Your task to perform on an android device: toggle sleep mode Image 0: 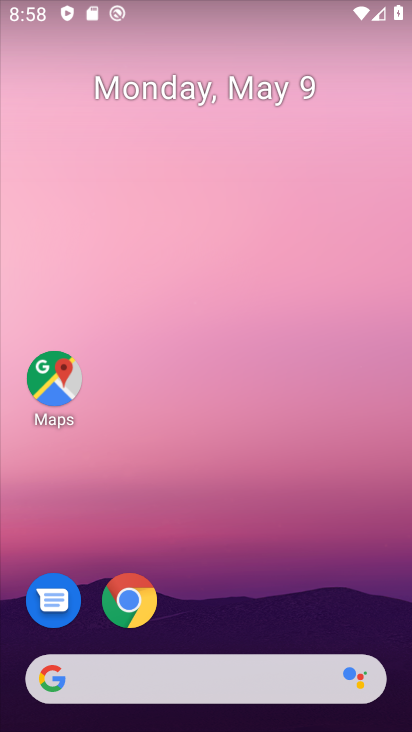
Step 0: click (141, 57)
Your task to perform on an android device: toggle sleep mode Image 1: 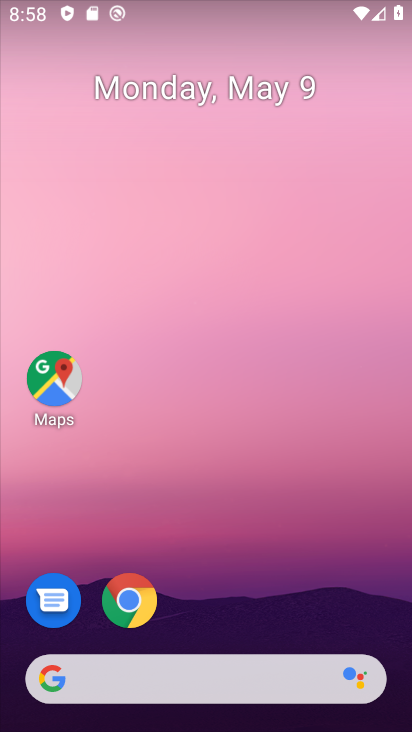
Step 1: drag from (195, 279) to (127, 14)
Your task to perform on an android device: toggle sleep mode Image 2: 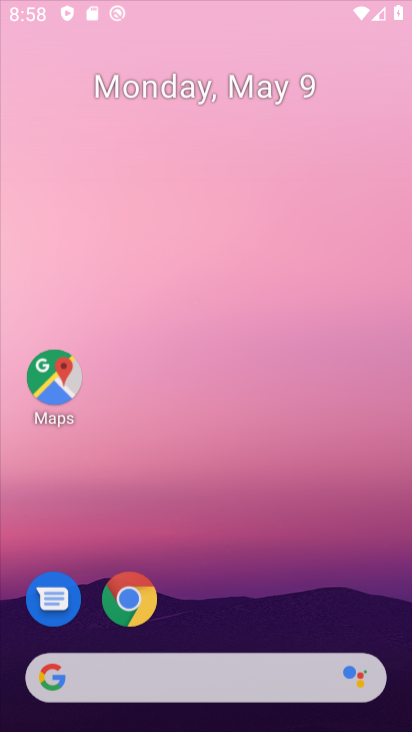
Step 2: drag from (154, 277) to (139, 8)
Your task to perform on an android device: toggle sleep mode Image 3: 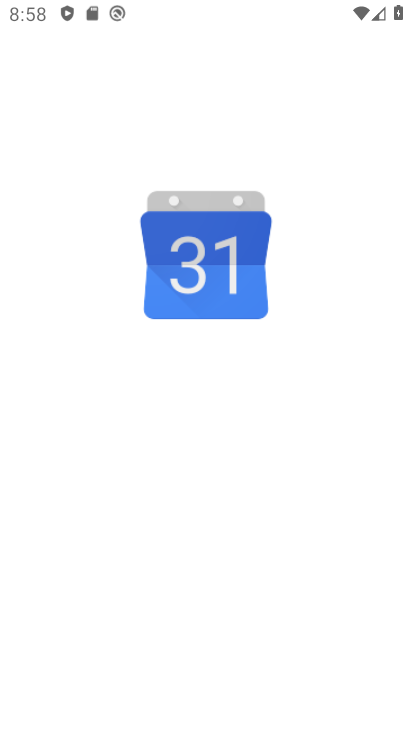
Step 3: drag from (225, 339) to (260, 56)
Your task to perform on an android device: toggle sleep mode Image 4: 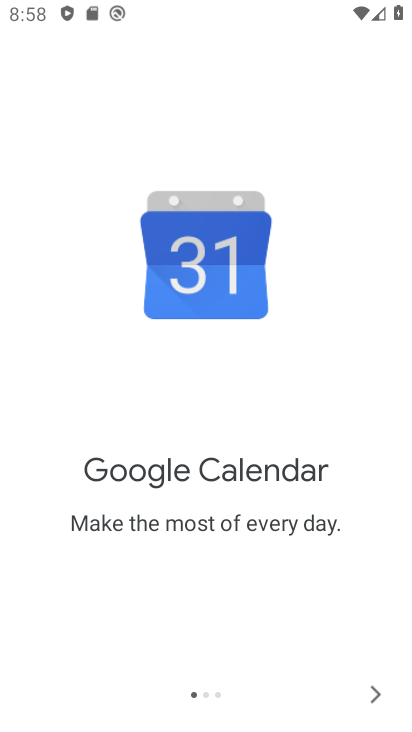
Step 4: click (385, 697)
Your task to perform on an android device: toggle sleep mode Image 5: 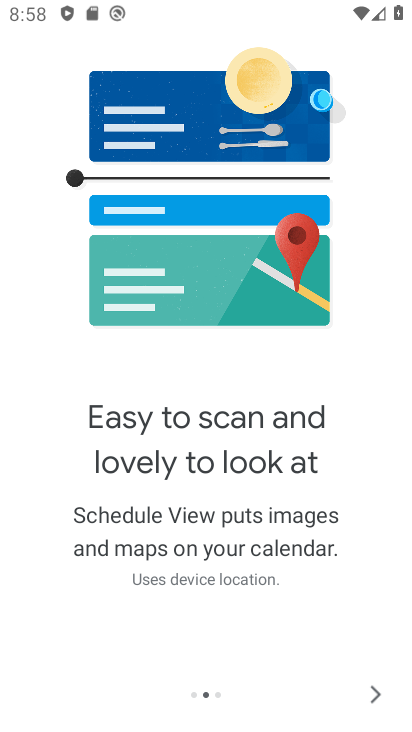
Step 5: click (375, 699)
Your task to perform on an android device: toggle sleep mode Image 6: 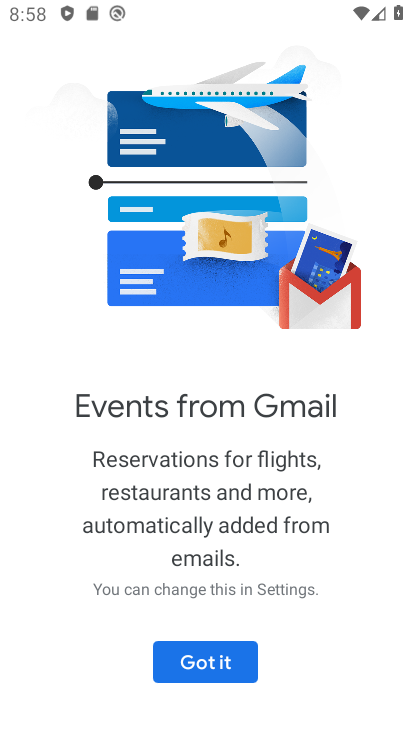
Step 6: click (212, 638)
Your task to perform on an android device: toggle sleep mode Image 7: 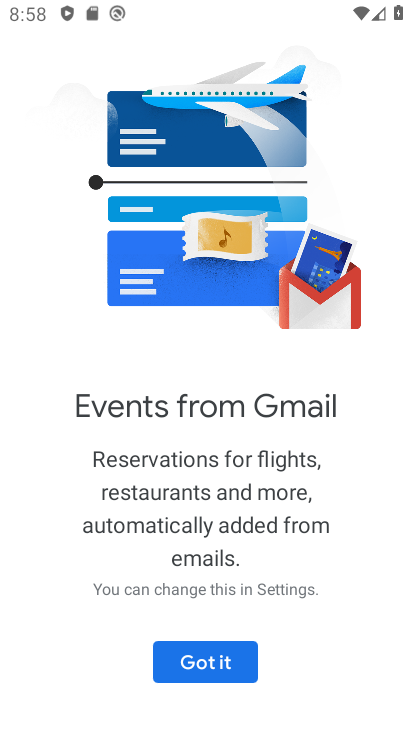
Step 7: click (212, 646)
Your task to perform on an android device: toggle sleep mode Image 8: 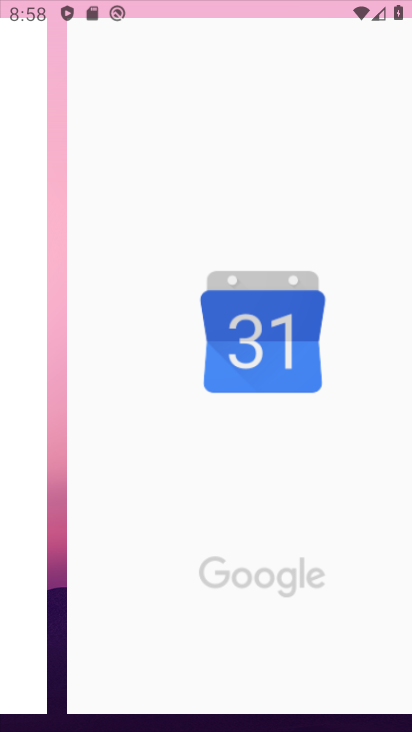
Step 8: click (220, 667)
Your task to perform on an android device: toggle sleep mode Image 9: 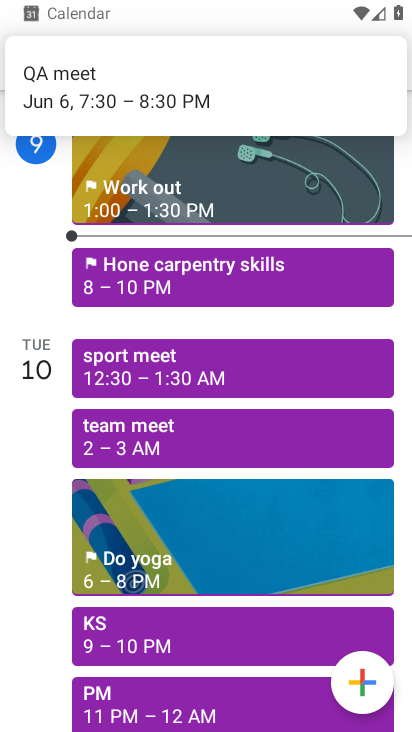
Step 9: press back button
Your task to perform on an android device: toggle sleep mode Image 10: 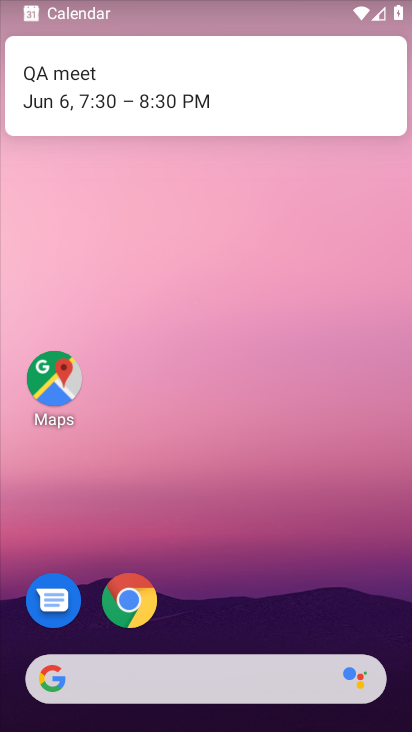
Step 10: drag from (247, 528) to (50, 54)
Your task to perform on an android device: toggle sleep mode Image 11: 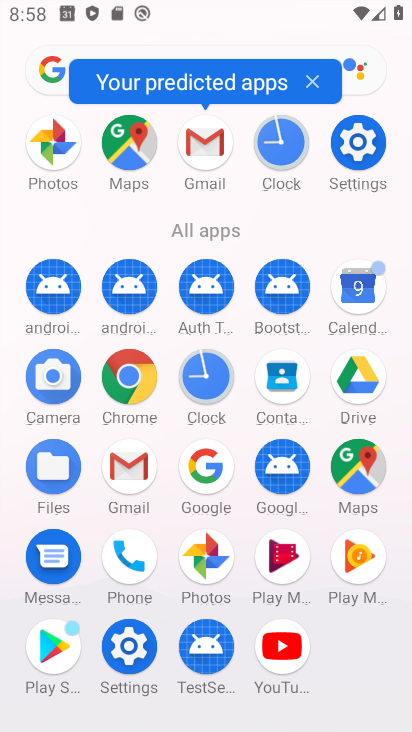
Step 11: click (371, 153)
Your task to perform on an android device: toggle sleep mode Image 12: 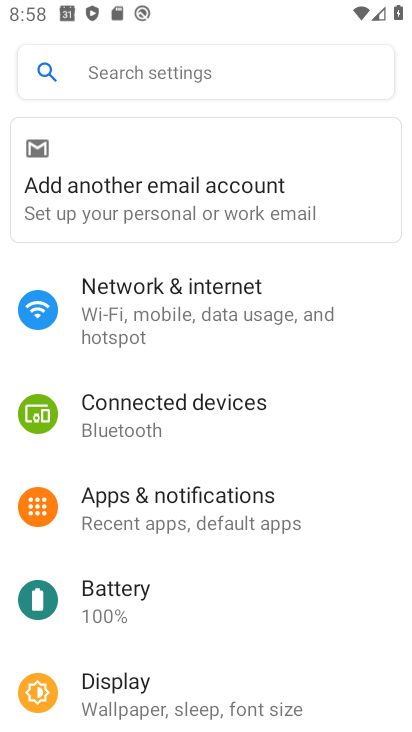
Step 12: drag from (163, 533) to (87, 40)
Your task to perform on an android device: toggle sleep mode Image 13: 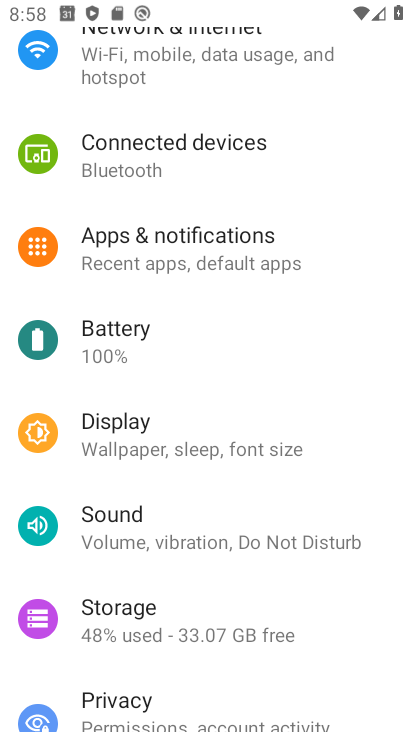
Step 13: drag from (123, 541) to (147, 157)
Your task to perform on an android device: toggle sleep mode Image 14: 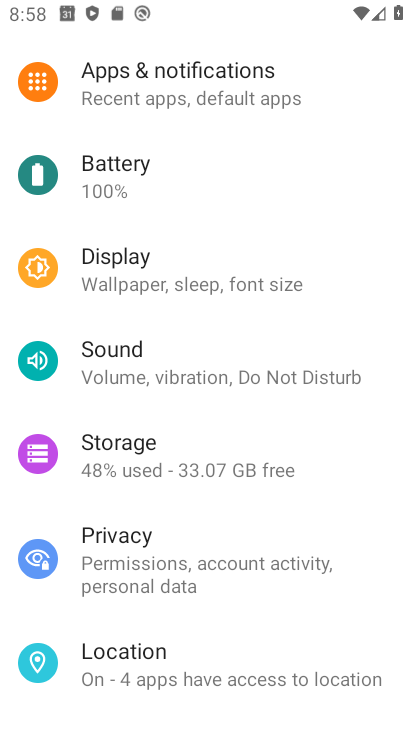
Step 14: click (126, 271)
Your task to perform on an android device: toggle sleep mode Image 15: 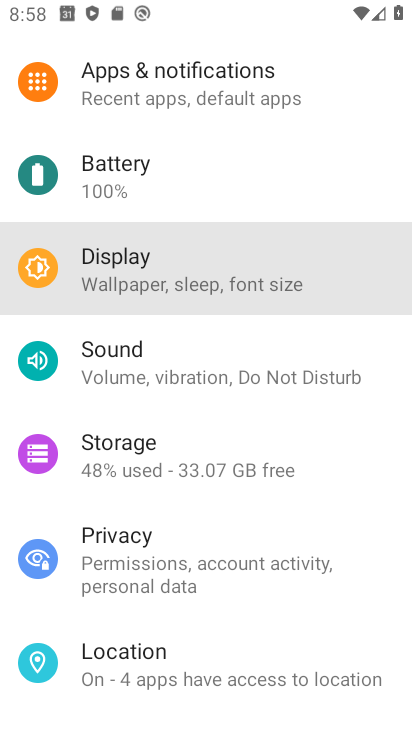
Step 15: click (126, 271)
Your task to perform on an android device: toggle sleep mode Image 16: 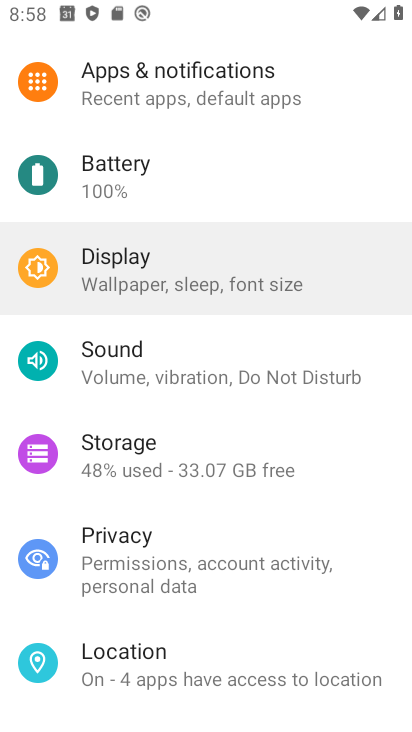
Step 16: click (127, 270)
Your task to perform on an android device: toggle sleep mode Image 17: 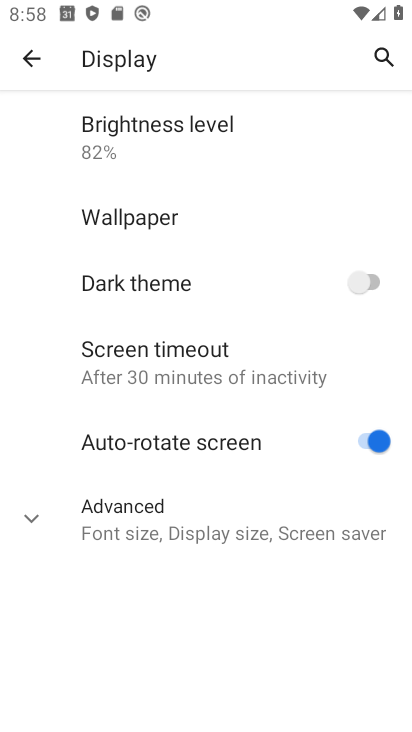
Step 17: click (22, 62)
Your task to perform on an android device: toggle sleep mode Image 18: 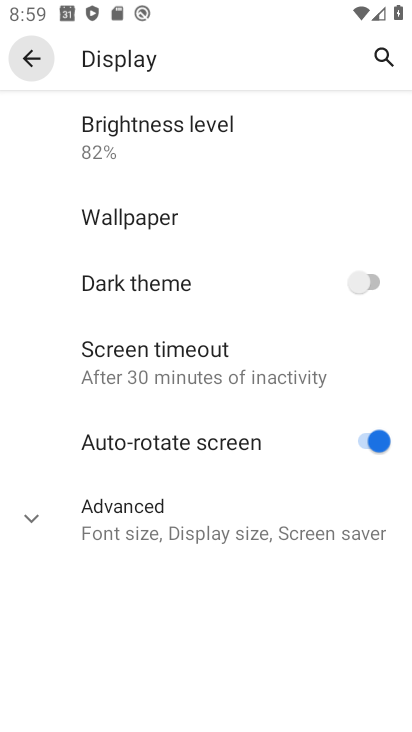
Step 18: click (23, 61)
Your task to perform on an android device: toggle sleep mode Image 19: 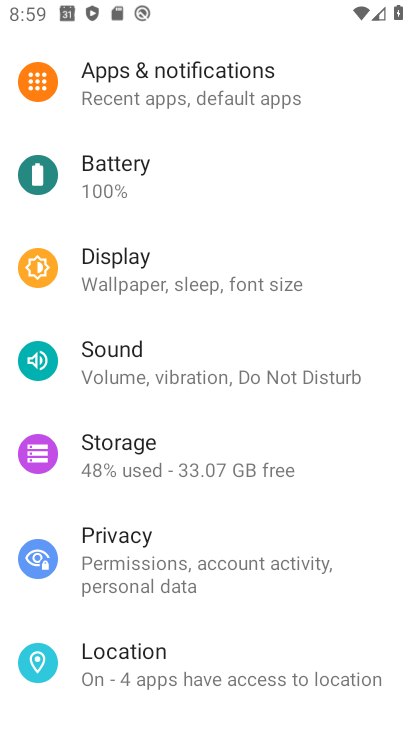
Step 19: drag from (150, 253) to (191, 631)
Your task to perform on an android device: toggle sleep mode Image 20: 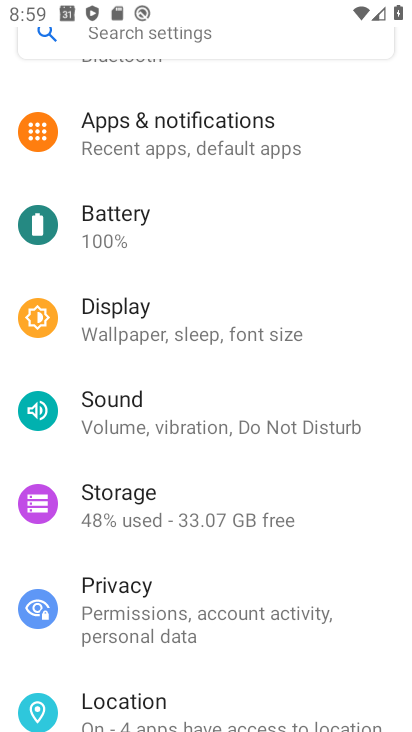
Step 20: click (163, 329)
Your task to perform on an android device: toggle sleep mode Image 21: 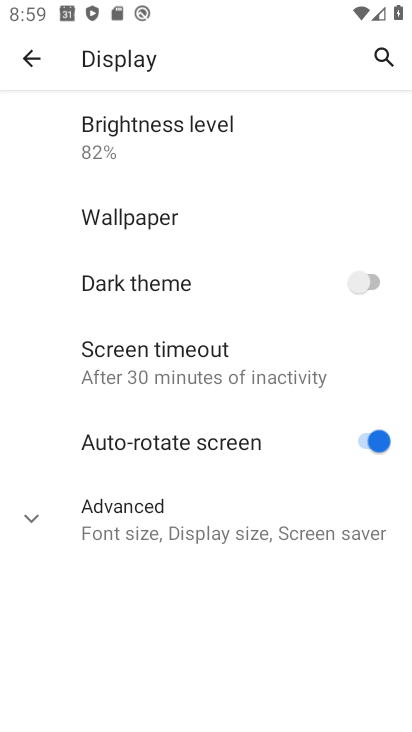
Step 21: click (163, 333)
Your task to perform on an android device: toggle sleep mode Image 22: 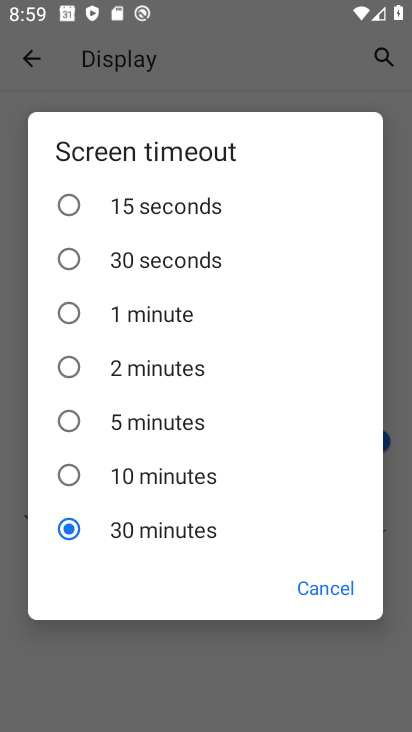
Step 22: click (148, 360)
Your task to perform on an android device: toggle sleep mode Image 23: 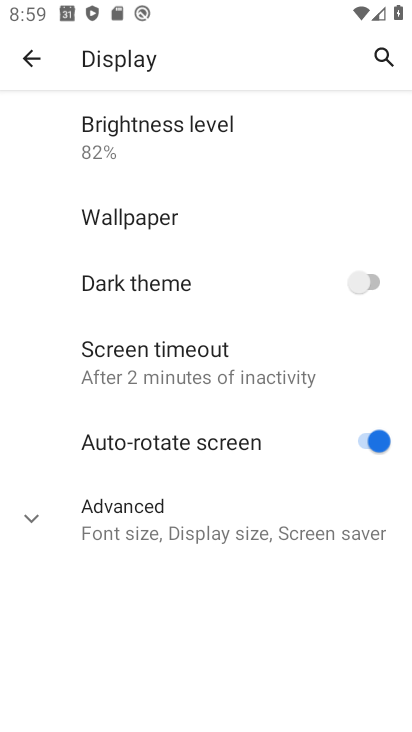
Step 23: click (69, 473)
Your task to perform on an android device: toggle sleep mode Image 24: 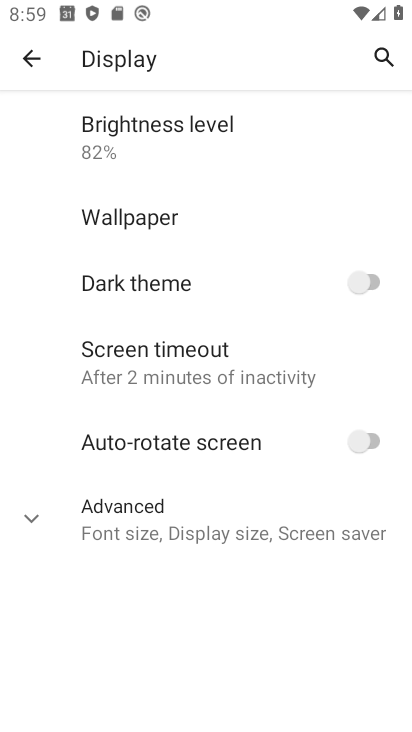
Step 24: click (146, 365)
Your task to perform on an android device: toggle sleep mode Image 25: 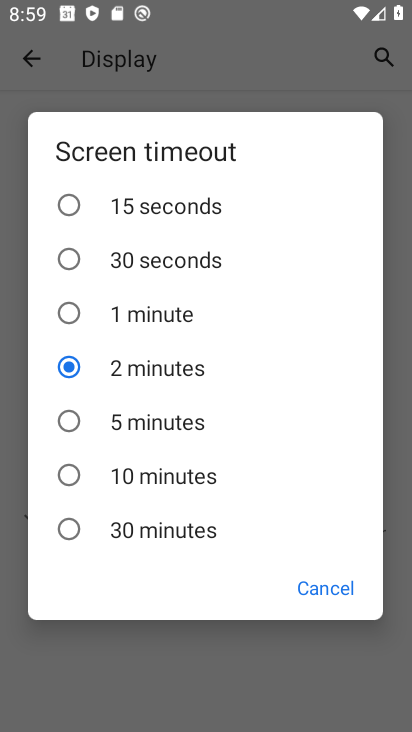
Step 25: task complete